Your task to perform on an android device: What's the weather like in San Francisco? Image 0: 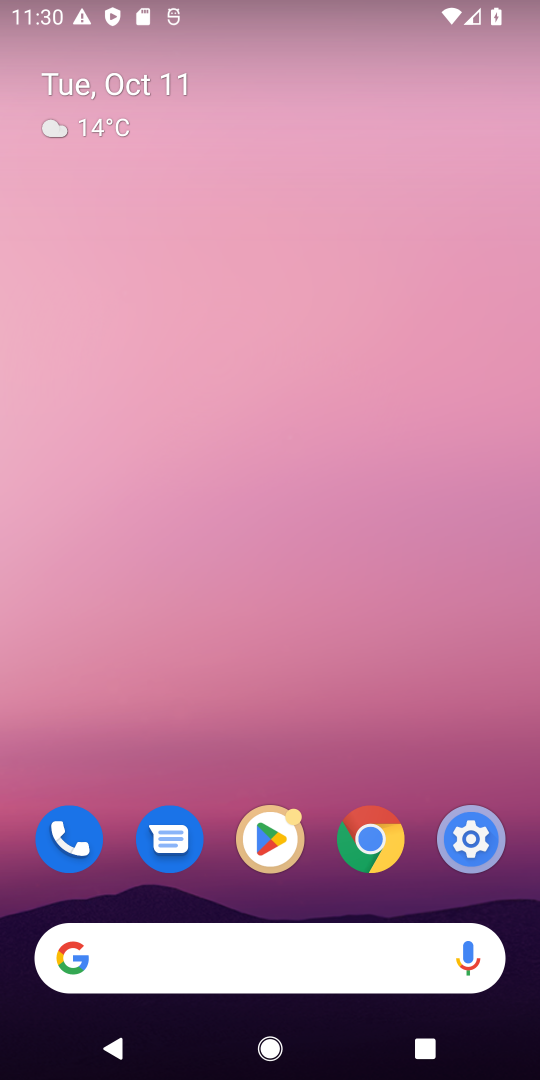
Step 0: click (370, 833)
Your task to perform on an android device: What's the weather like in San Francisco? Image 1: 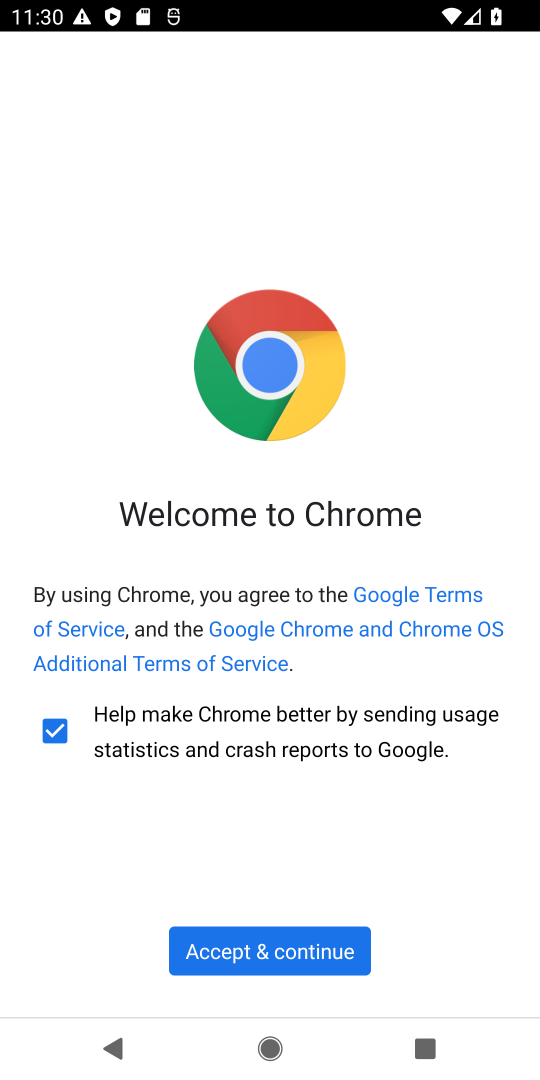
Step 1: click (213, 952)
Your task to perform on an android device: What's the weather like in San Francisco? Image 2: 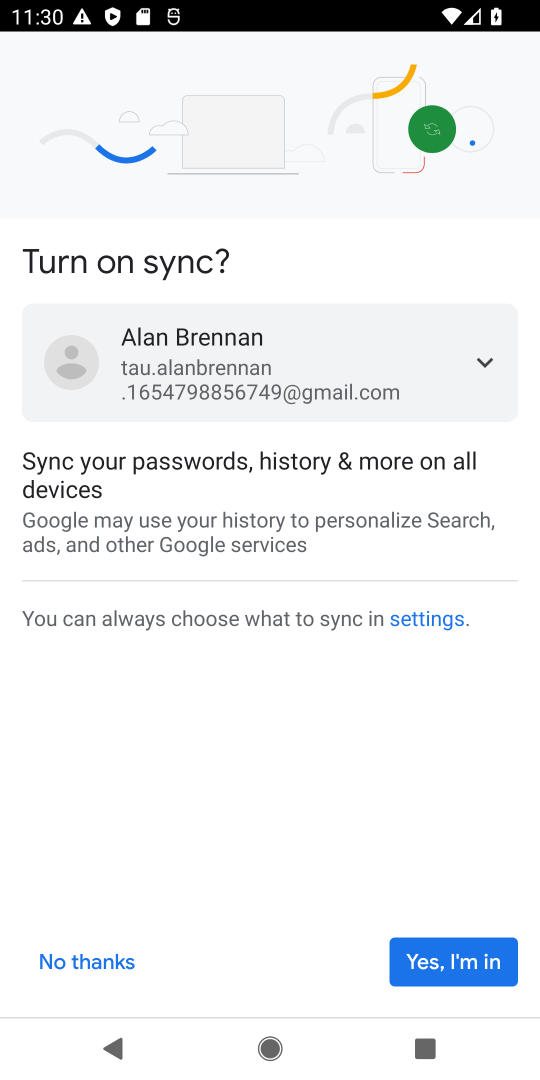
Step 2: click (419, 952)
Your task to perform on an android device: What's the weather like in San Francisco? Image 3: 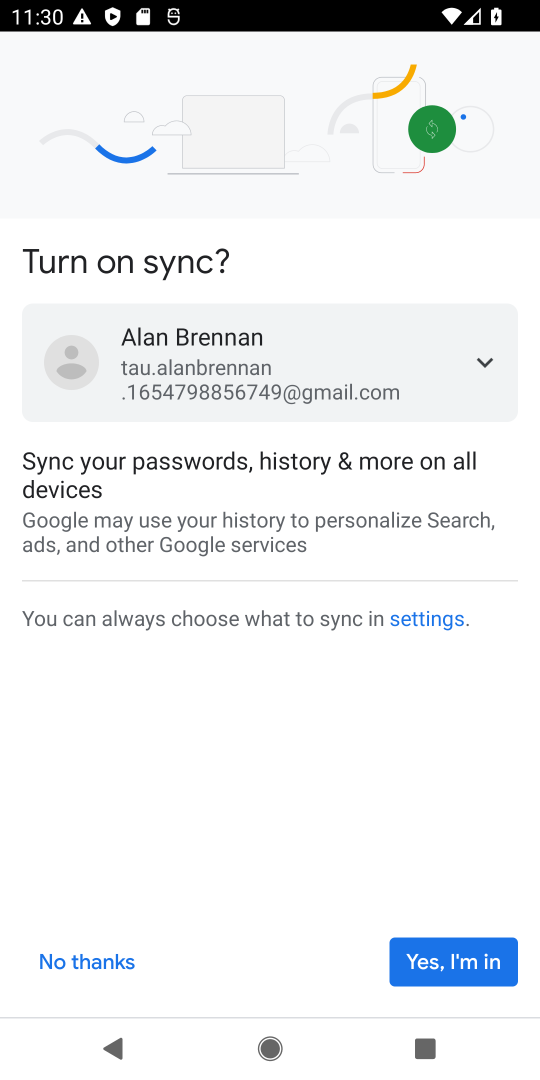
Step 3: click (440, 963)
Your task to perform on an android device: What's the weather like in San Francisco? Image 4: 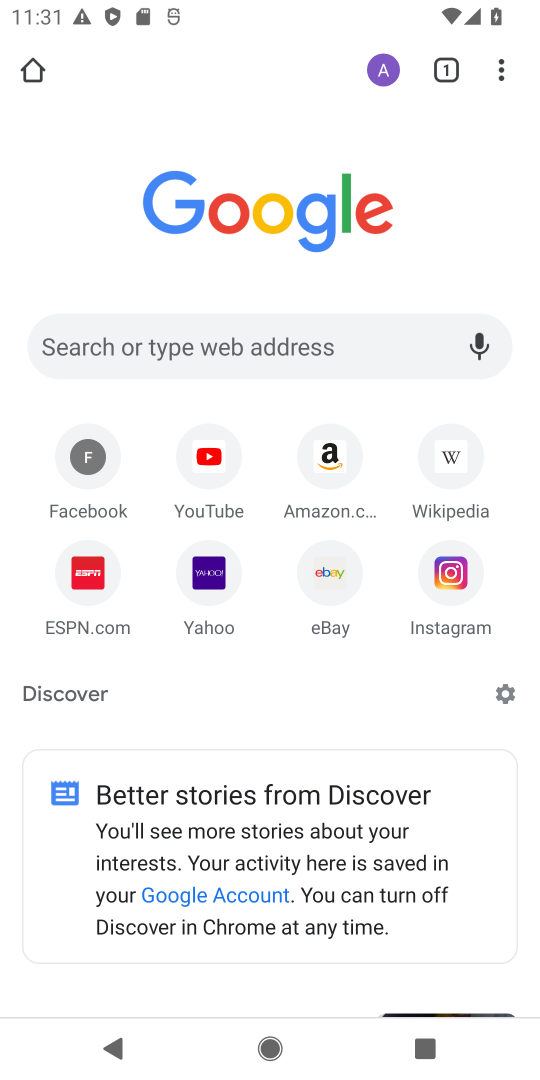
Step 4: click (294, 340)
Your task to perform on an android device: What's the weather like in San Francisco? Image 5: 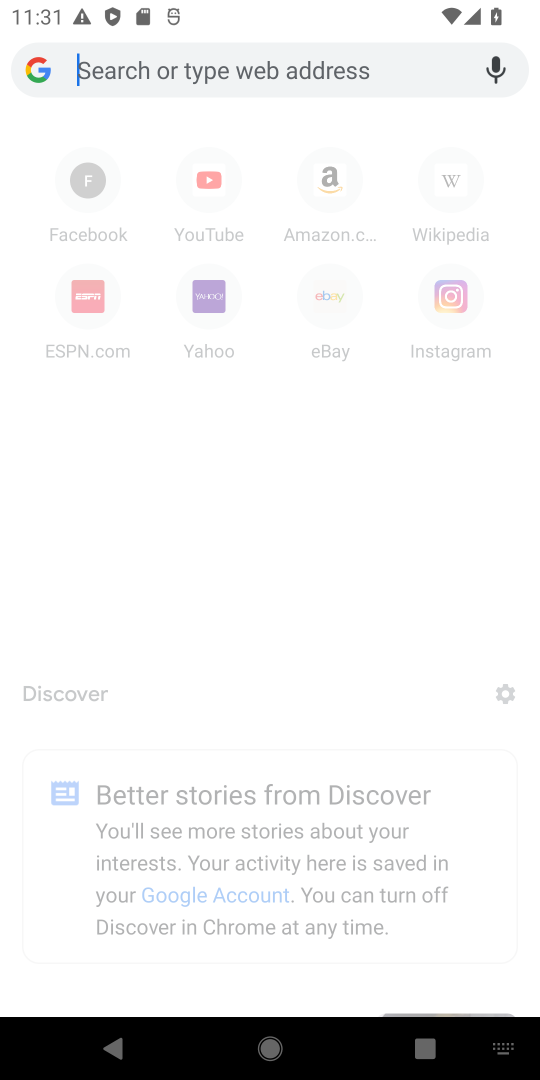
Step 5: type "weather like in San Francisco"
Your task to perform on an android device: What's the weather like in San Francisco? Image 6: 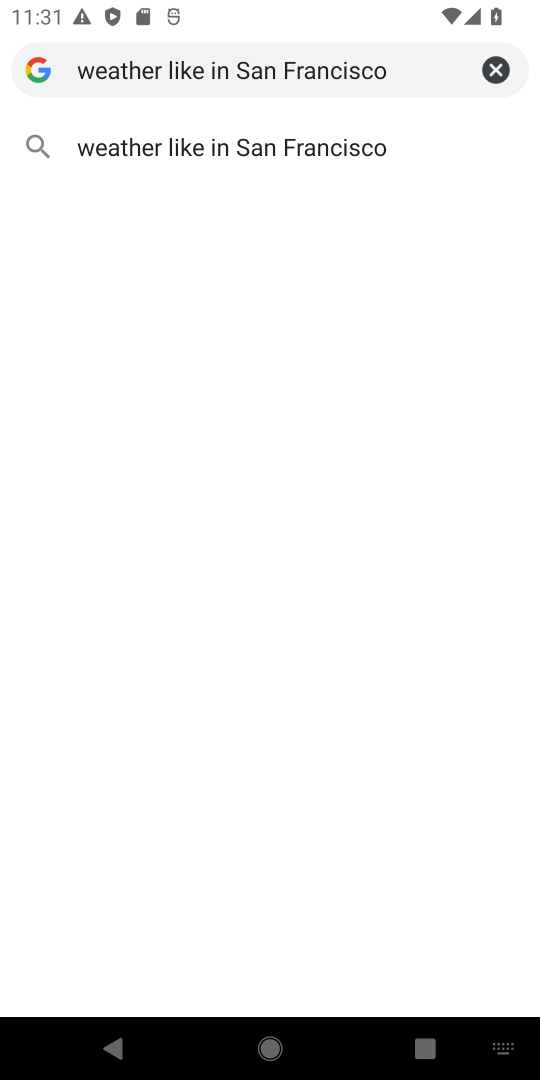
Step 6: click (365, 153)
Your task to perform on an android device: What's the weather like in San Francisco? Image 7: 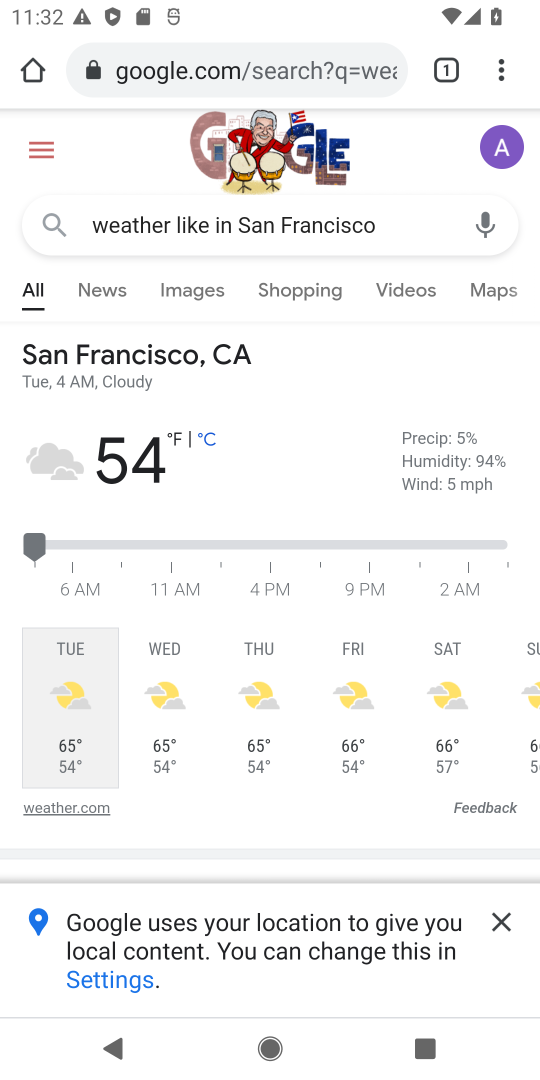
Step 7: task complete